Your task to perform on an android device: What's the weather? Image 0: 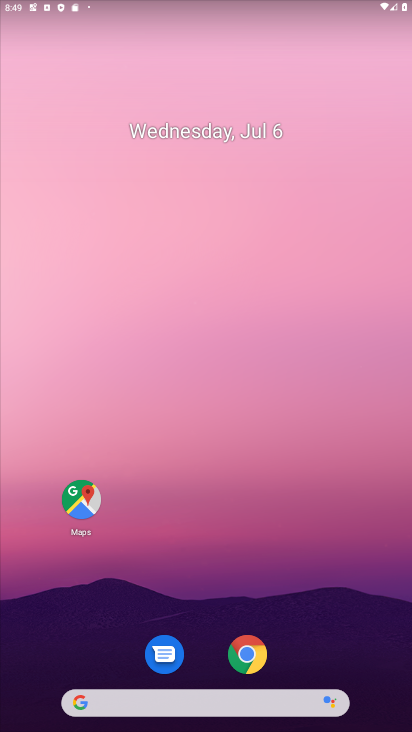
Step 0: click (147, 706)
Your task to perform on an android device: What's the weather? Image 1: 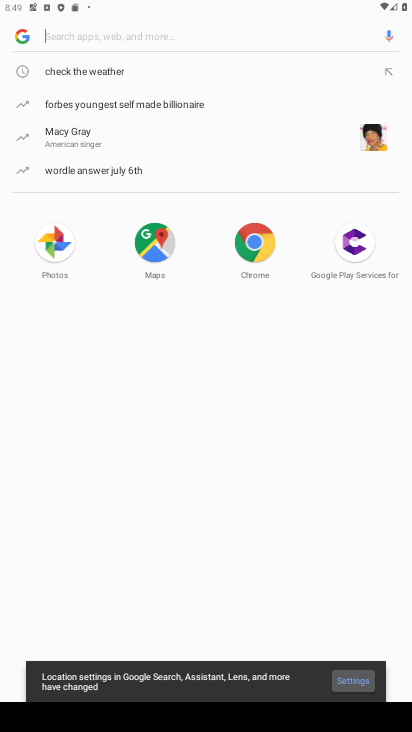
Step 1: click (21, 37)
Your task to perform on an android device: What's the weather? Image 2: 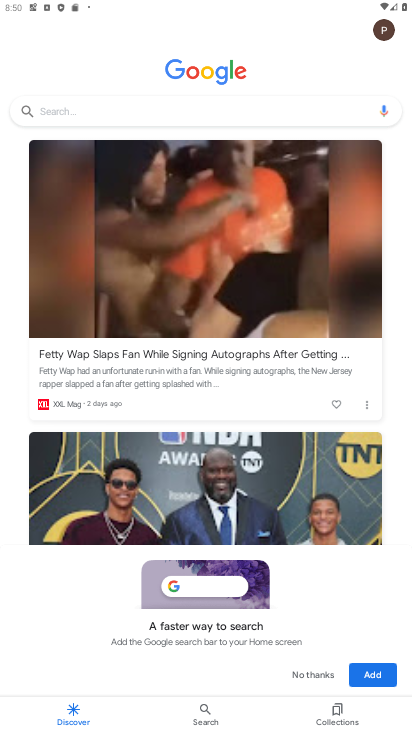
Step 2: click (177, 105)
Your task to perform on an android device: What's the weather? Image 3: 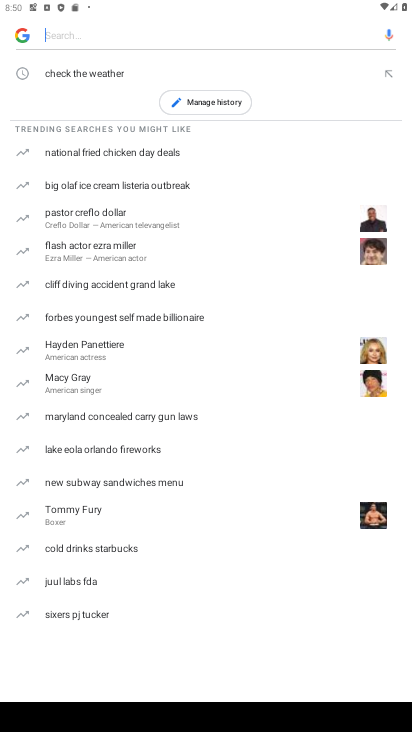
Step 3: click (85, 71)
Your task to perform on an android device: What's the weather? Image 4: 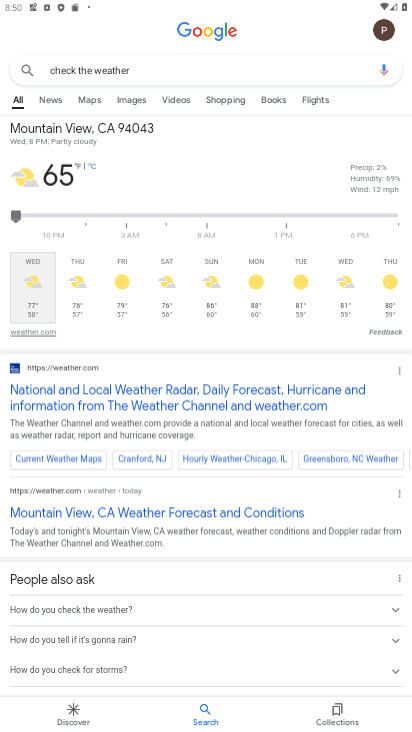
Step 4: task complete